Your task to perform on an android device: open app "DoorDash - Dasher" (install if not already installed) Image 0: 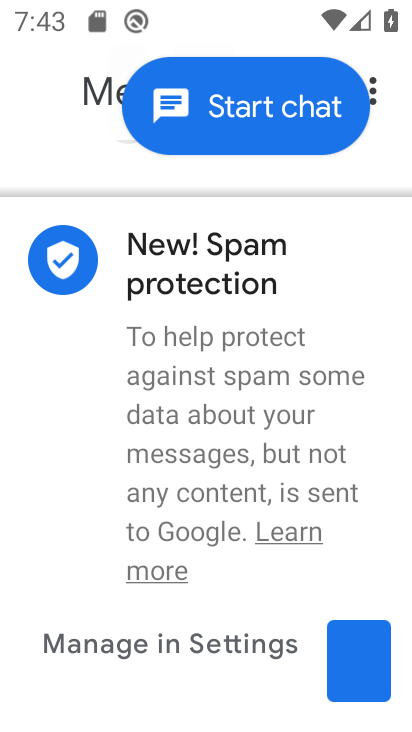
Step 0: press home button
Your task to perform on an android device: open app "DoorDash - Dasher" (install if not already installed) Image 1: 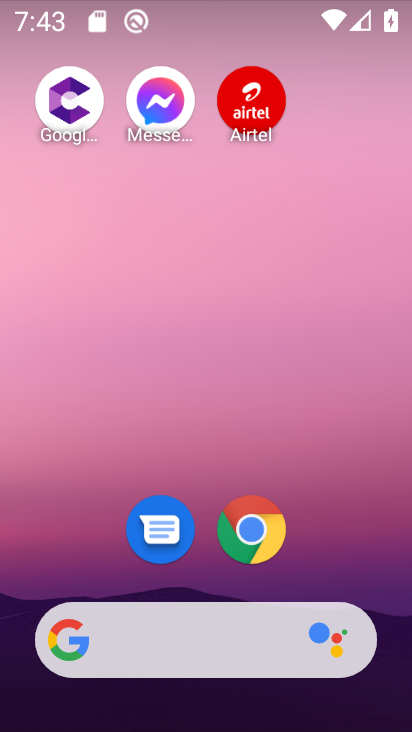
Step 1: drag from (203, 437) to (217, 0)
Your task to perform on an android device: open app "DoorDash - Dasher" (install if not already installed) Image 2: 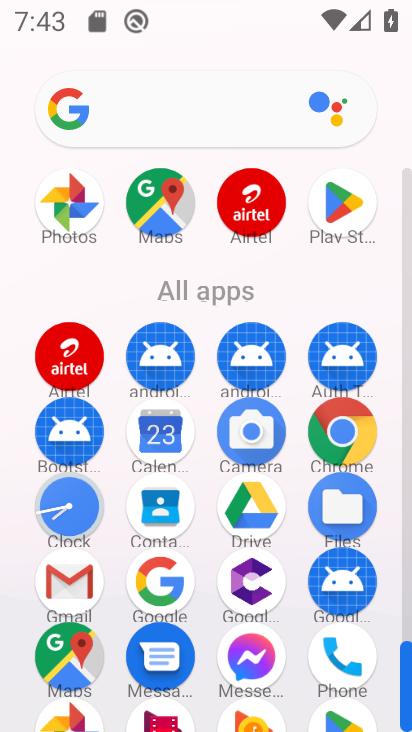
Step 2: click (352, 192)
Your task to perform on an android device: open app "DoorDash - Dasher" (install if not already installed) Image 3: 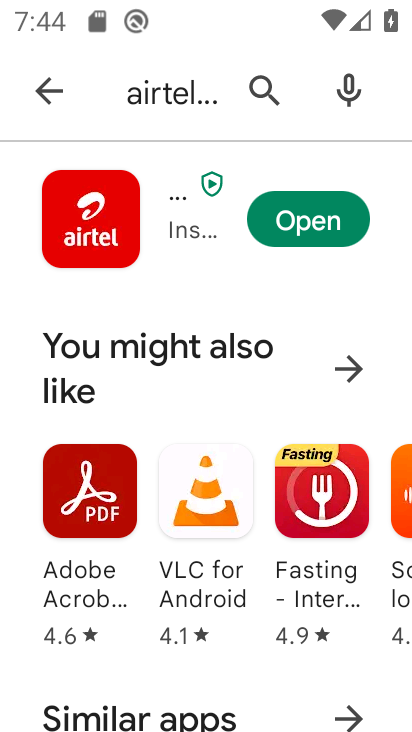
Step 3: click (252, 89)
Your task to perform on an android device: open app "DoorDash - Dasher" (install if not already installed) Image 4: 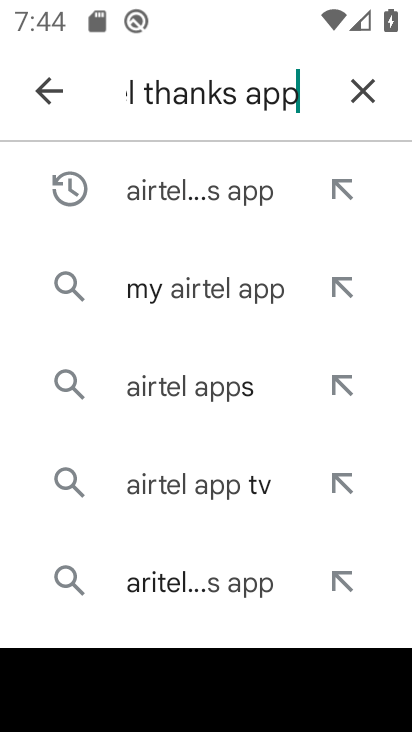
Step 4: click (370, 84)
Your task to perform on an android device: open app "DoorDash - Dasher" (install if not already installed) Image 5: 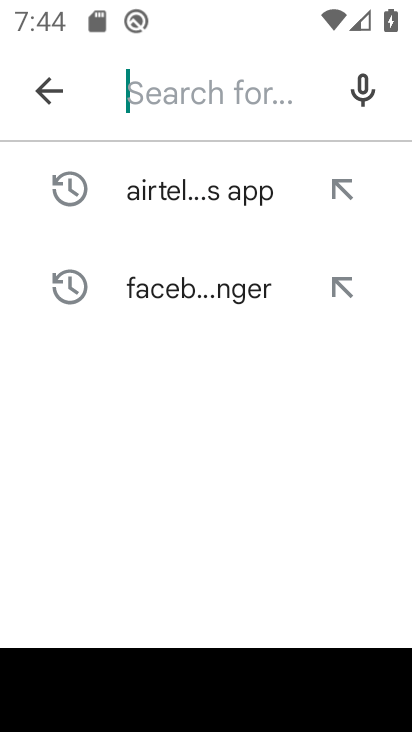
Step 5: type "DoorDash - Dasher"
Your task to perform on an android device: open app "DoorDash - Dasher" (install if not already installed) Image 6: 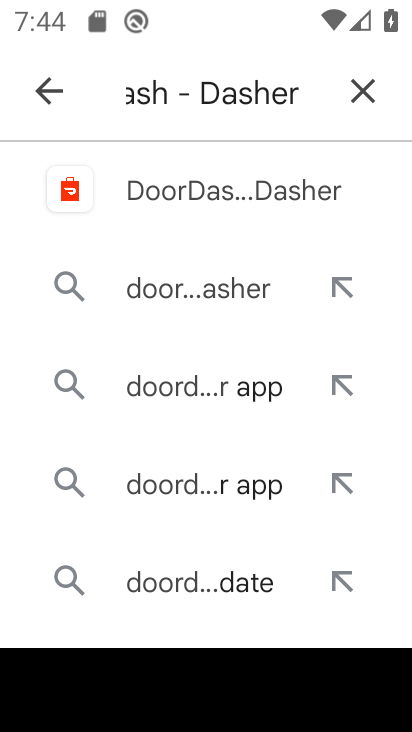
Step 6: click (186, 192)
Your task to perform on an android device: open app "DoorDash - Dasher" (install if not already installed) Image 7: 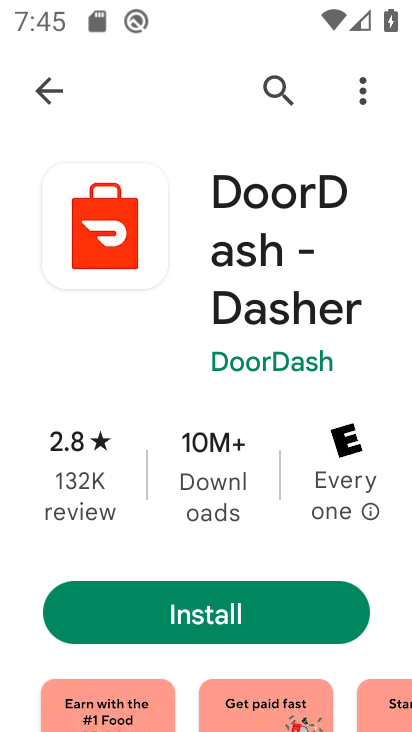
Step 7: click (230, 602)
Your task to perform on an android device: open app "DoorDash - Dasher" (install if not already installed) Image 8: 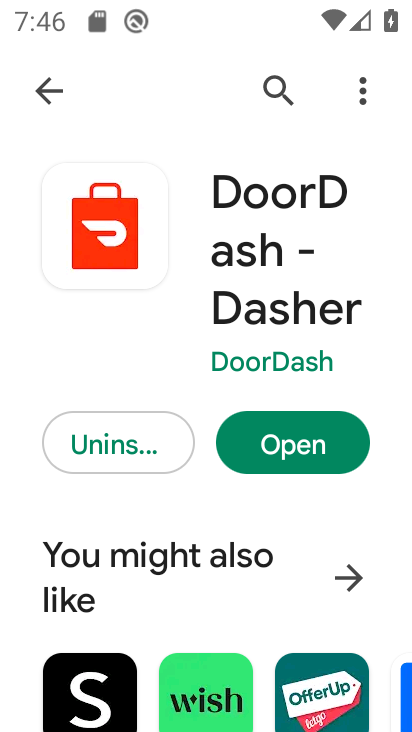
Step 8: click (297, 453)
Your task to perform on an android device: open app "DoorDash - Dasher" (install if not already installed) Image 9: 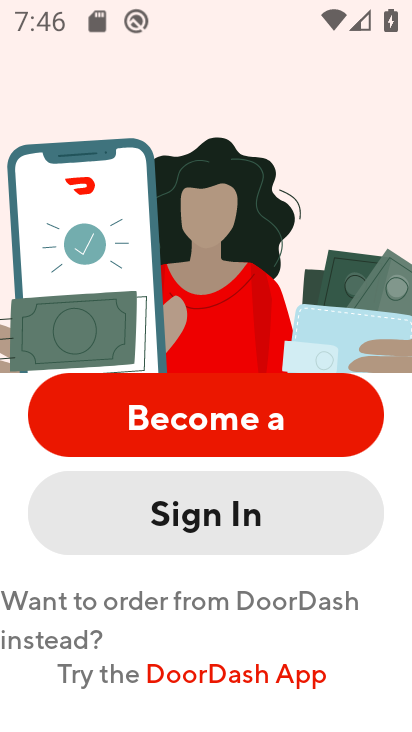
Step 9: click (206, 425)
Your task to perform on an android device: open app "DoorDash - Dasher" (install if not already installed) Image 10: 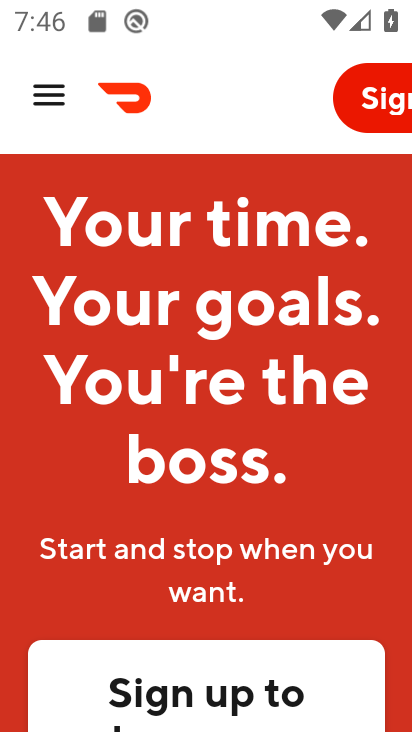
Step 10: click (377, 108)
Your task to perform on an android device: open app "DoorDash - Dasher" (install if not already installed) Image 11: 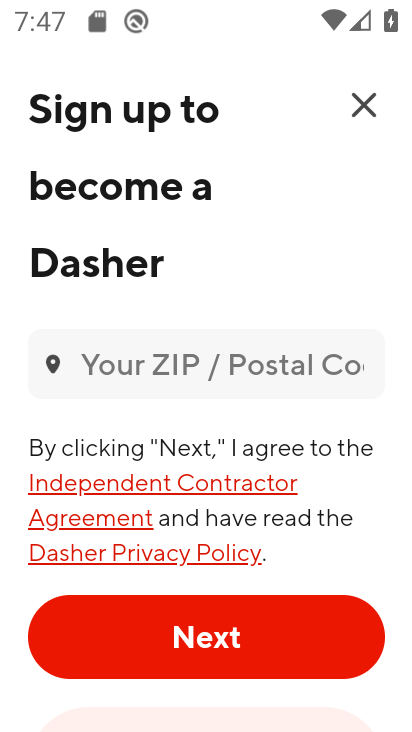
Step 11: click (224, 651)
Your task to perform on an android device: open app "DoorDash - Dasher" (install if not already installed) Image 12: 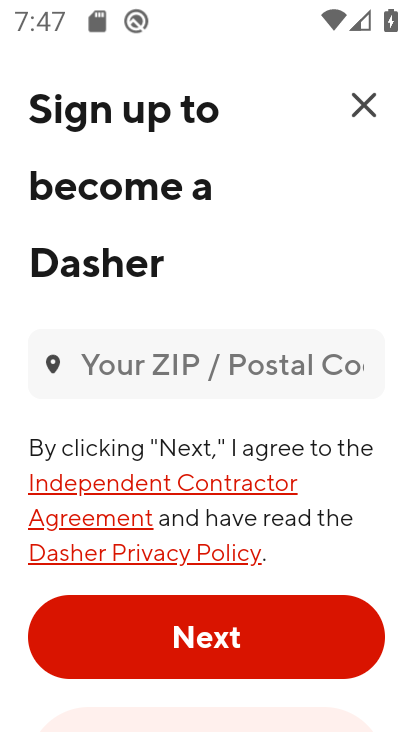
Step 12: click (374, 94)
Your task to perform on an android device: open app "DoorDash - Dasher" (install if not already installed) Image 13: 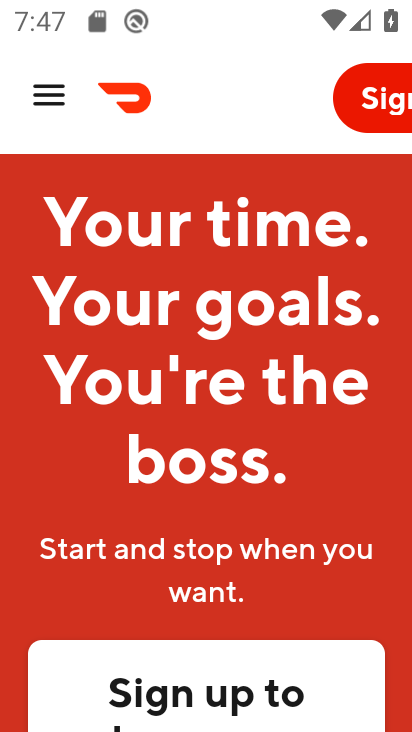
Step 13: drag from (212, 615) to (216, 84)
Your task to perform on an android device: open app "DoorDash - Dasher" (install if not already installed) Image 14: 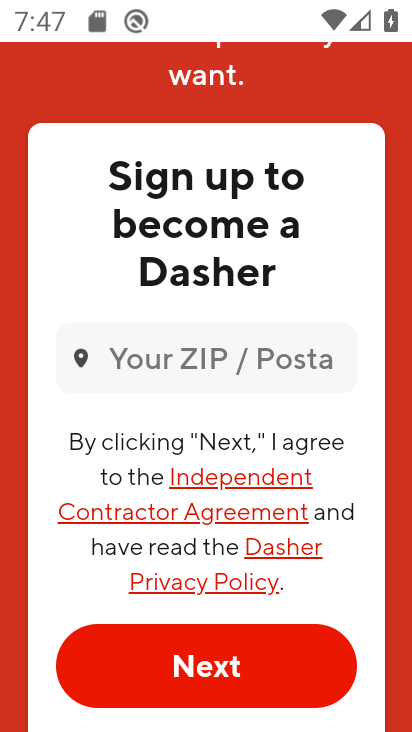
Step 14: drag from (237, 554) to (234, 183)
Your task to perform on an android device: open app "DoorDash - Dasher" (install if not already installed) Image 15: 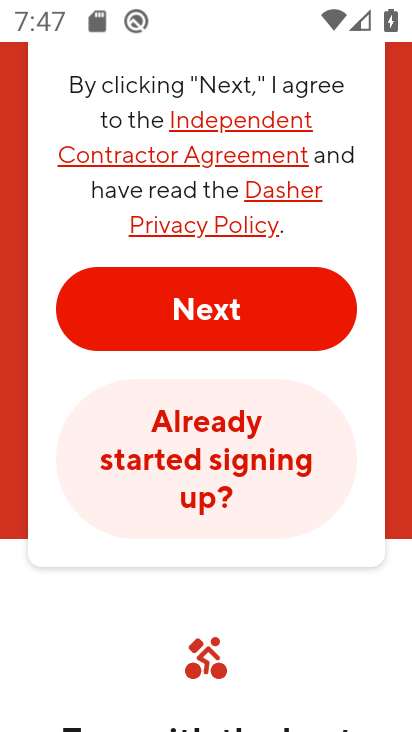
Step 15: click (190, 462)
Your task to perform on an android device: open app "DoorDash - Dasher" (install if not already installed) Image 16: 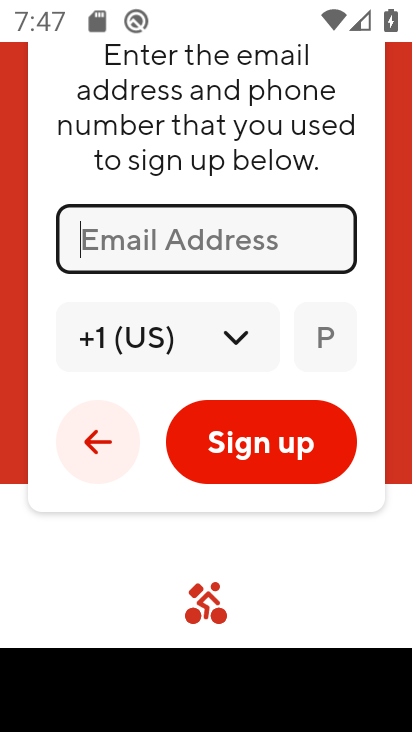
Step 16: click (183, 240)
Your task to perform on an android device: open app "DoorDash - Dasher" (install if not already installed) Image 17: 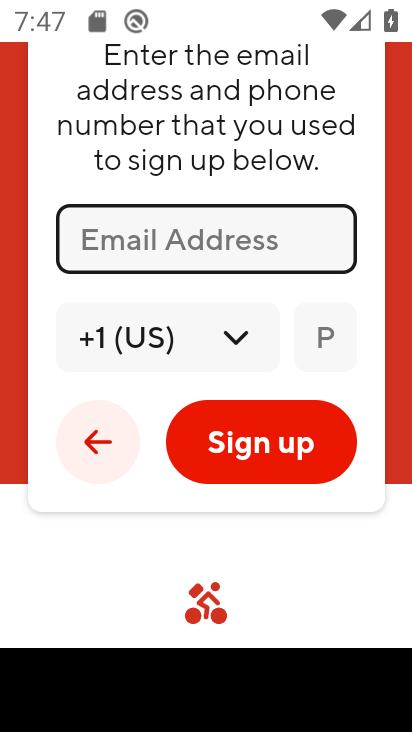
Step 17: task complete